Your task to perform on an android device: Open Chrome and go to settings Image 0: 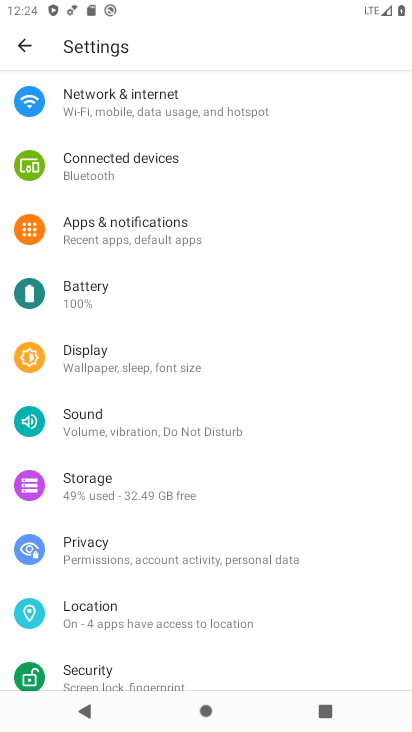
Step 0: press home button
Your task to perform on an android device: Open Chrome and go to settings Image 1: 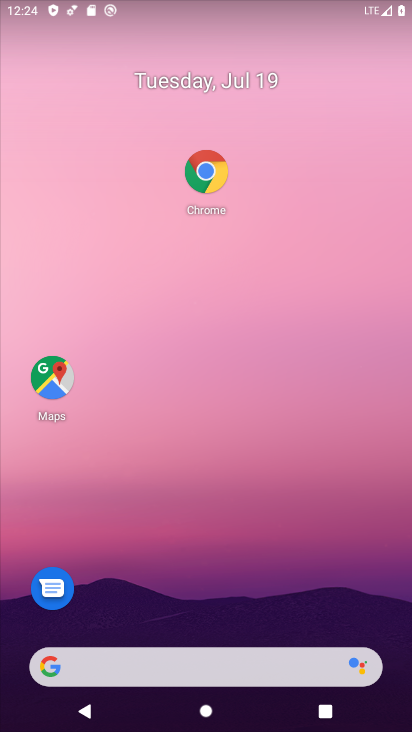
Step 1: click (217, 178)
Your task to perform on an android device: Open Chrome and go to settings Image 2: 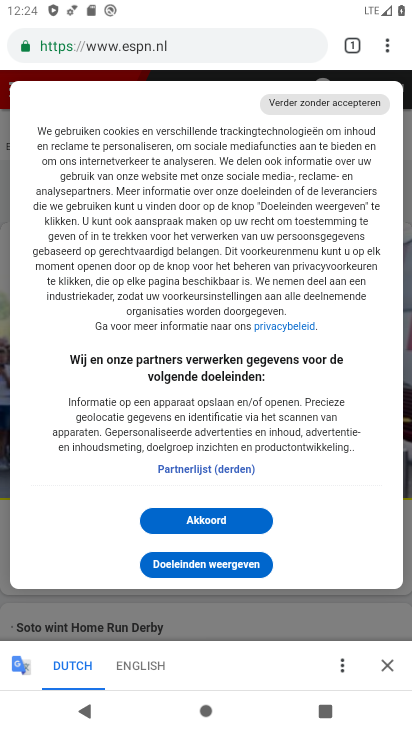
Step 2: click (402, 50)
Your task to perform on an android device: Open Chrome and go to settings Image 3: 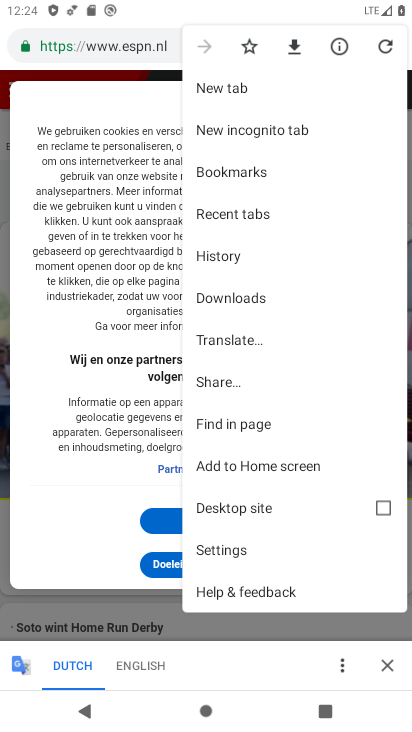
Step 3: click (221, 558)
Your task to perform on an android device: Open Chrome and go to settings Image 4: 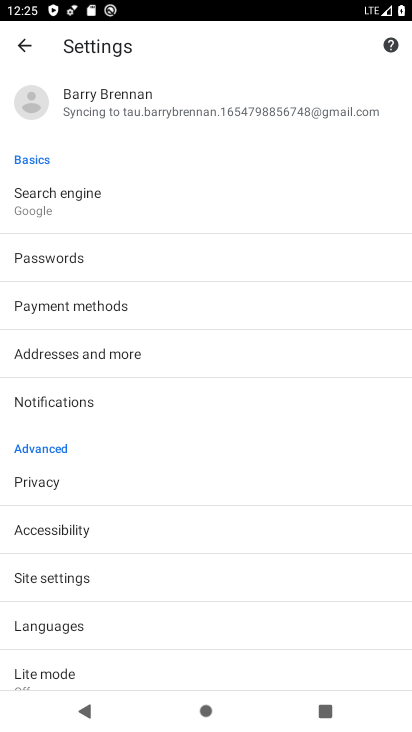
Step 4: task complete